Your task to perform on an android device: Open sound settings Image 0: 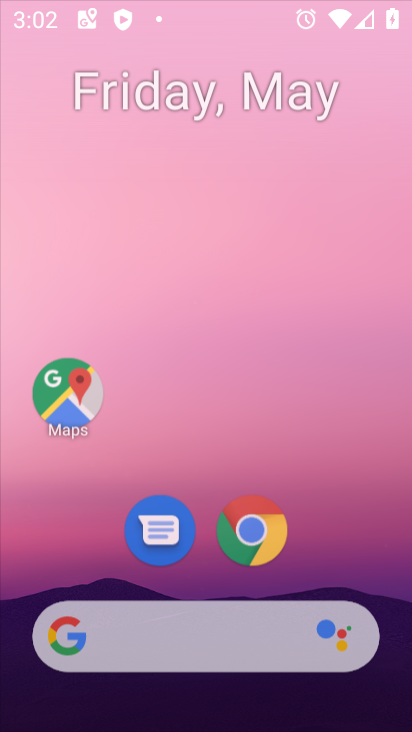
Step 0: drag from (344, 546) to (370, 207)
Your task to perform on an android device: Open sound settings Image 1: 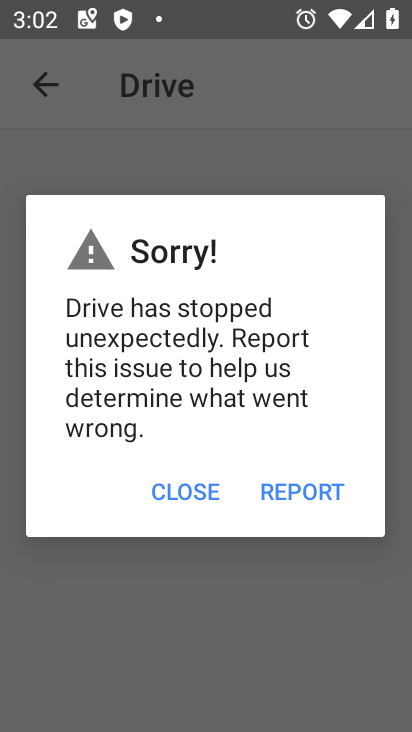
Step 1: press home button
Your task to perform on an android device: Open sound settings Image 2: 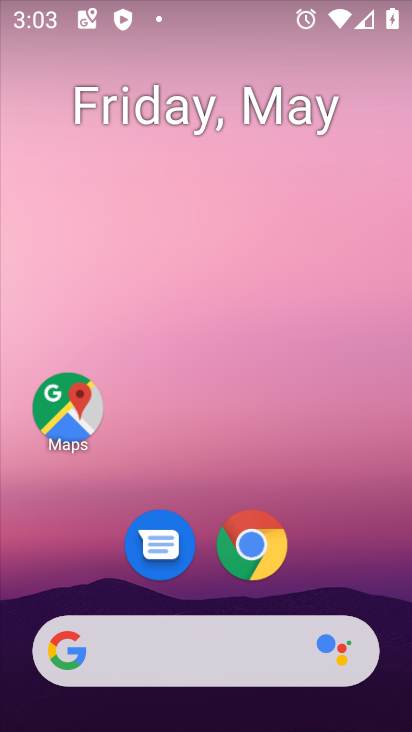
Step 2: drag from (353, 576) to (301, 114)
Your task to perform on an android device: Open sound settings Image 3: 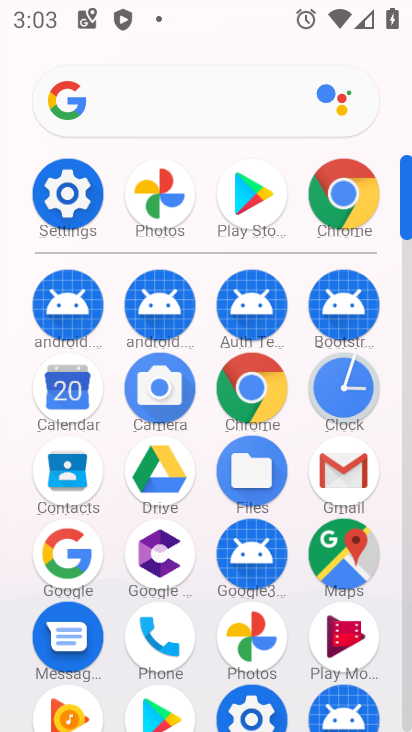
Step 3: click (73, 191)
Your task to perform on an android device: Open sound settings Image 4: 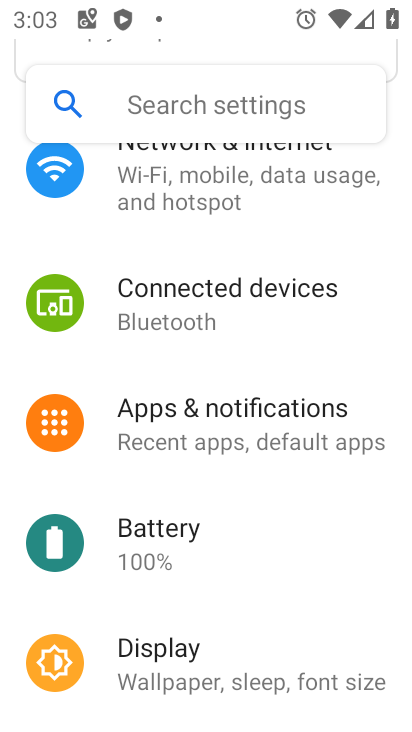
Step 4: drag from (306, 630) to (290, 271)
Your task to perform on an android device: Open sound settings Image 5: 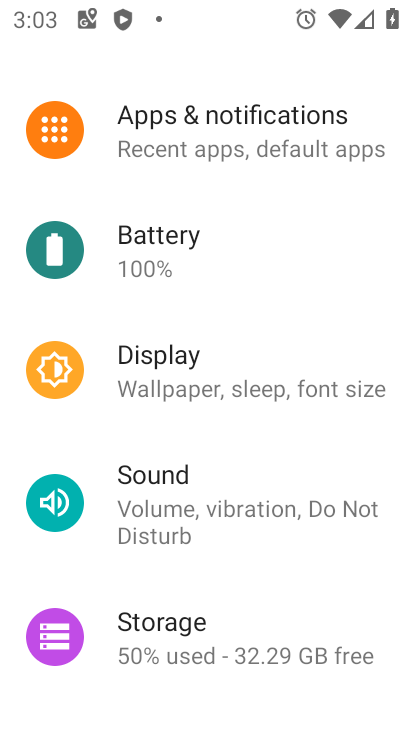
Step 5: click (213, 494)
Your task to perform on an android device: Open sound settings Image 6: 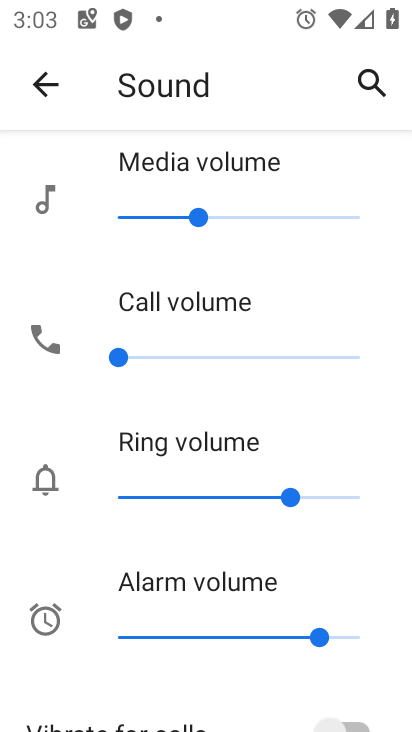
Step 6: task complete